Your task to perform on an android device: install app "Indeed Job Search" Image 0: 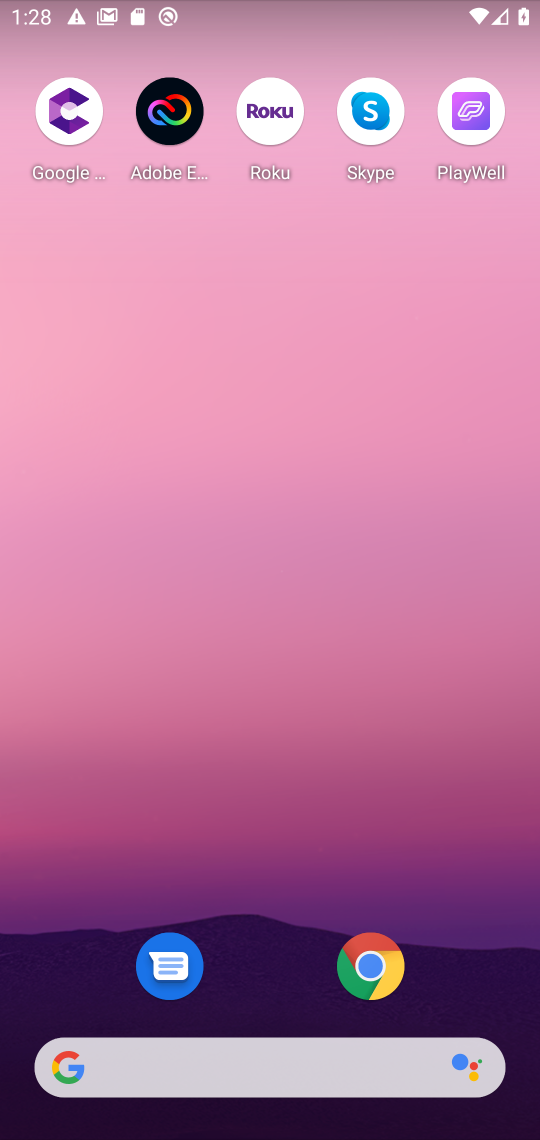
Step 0: drag from (229, 1036) to (216, 82)
Your task to perform on an android device: install app "Indeed Job Search" Image 1: 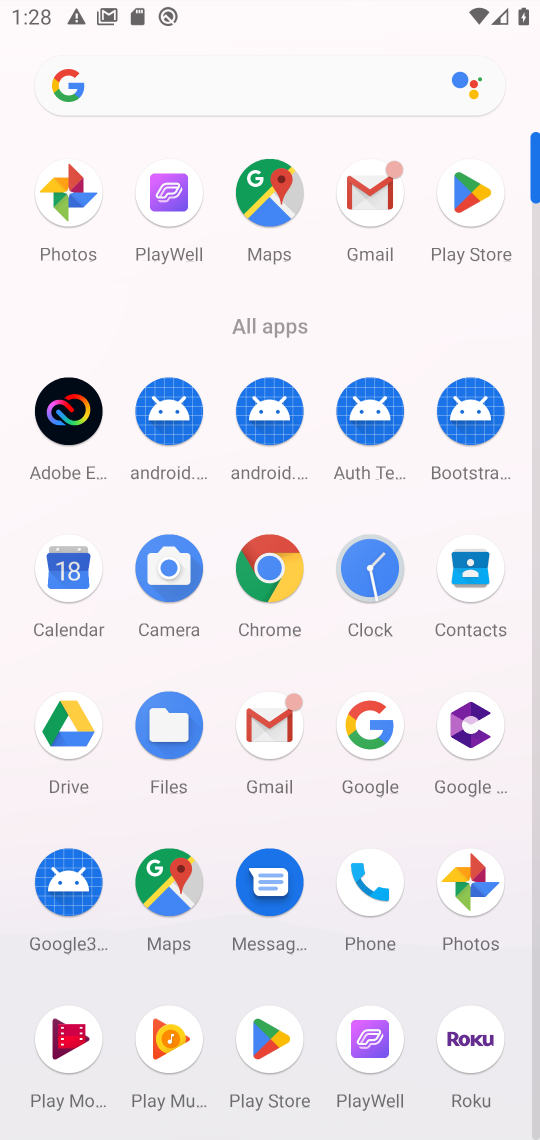
Step 1: click (256, 1055)
Your task to perform on an android device: install app "Indeed Job Search" Image 2: 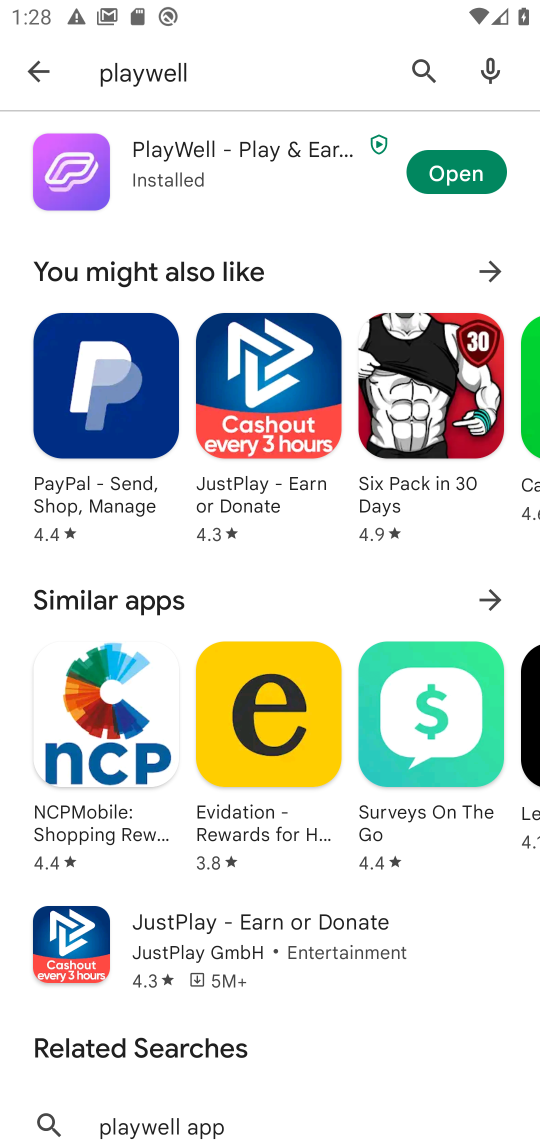
Step 2: click (40, 66)
Your task to perform on an android device: install app "Indeed Job Search" Image 3: 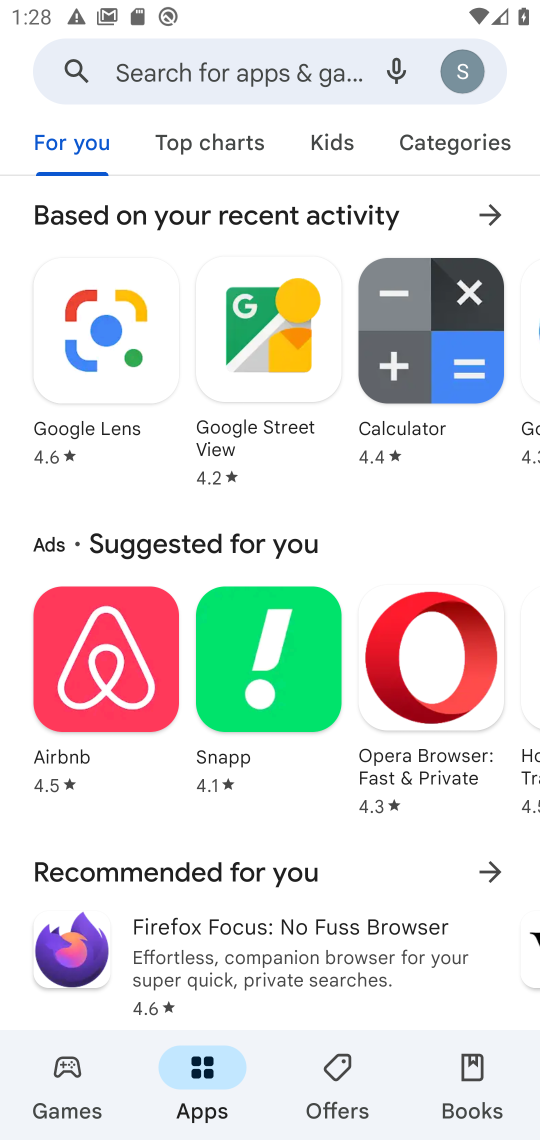
Step 3: click (149, 81)
Your task to perform on an android device: install app "Indeed Job Search" Image 4: 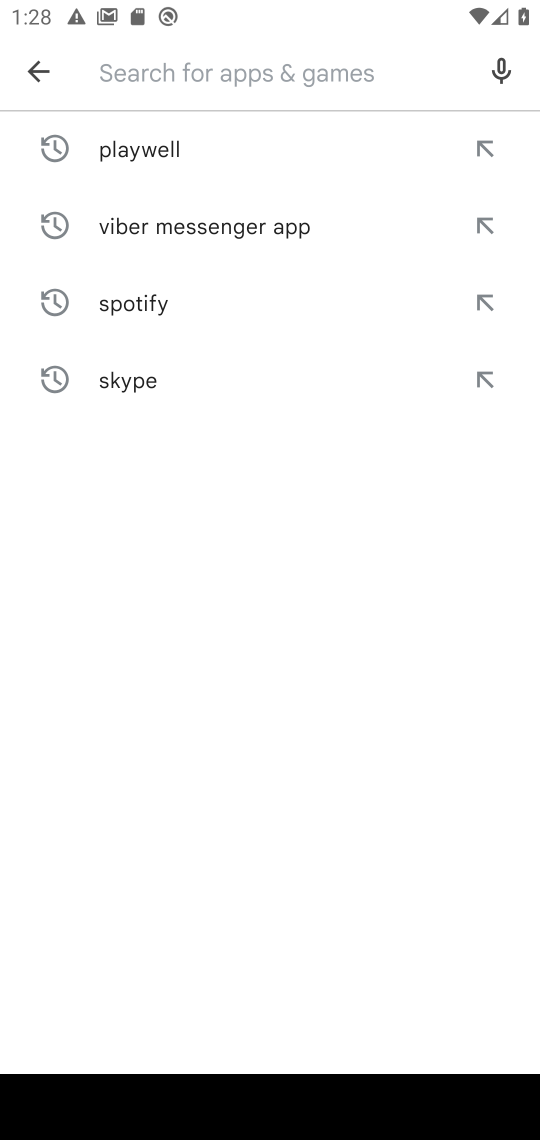
Step 4: type "Indeed Job Search"
Your task to perform on an android device: install app "Indeed Job Search" Image 5: 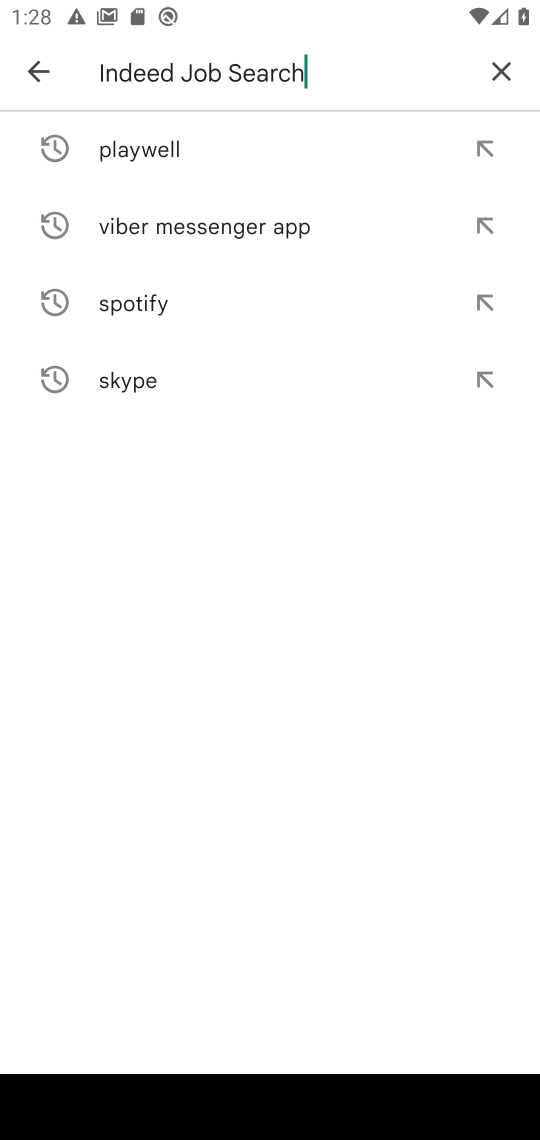
Step 5: type ""
Your task to perform on an android device: install app "Indeed Job Search" Image 6: 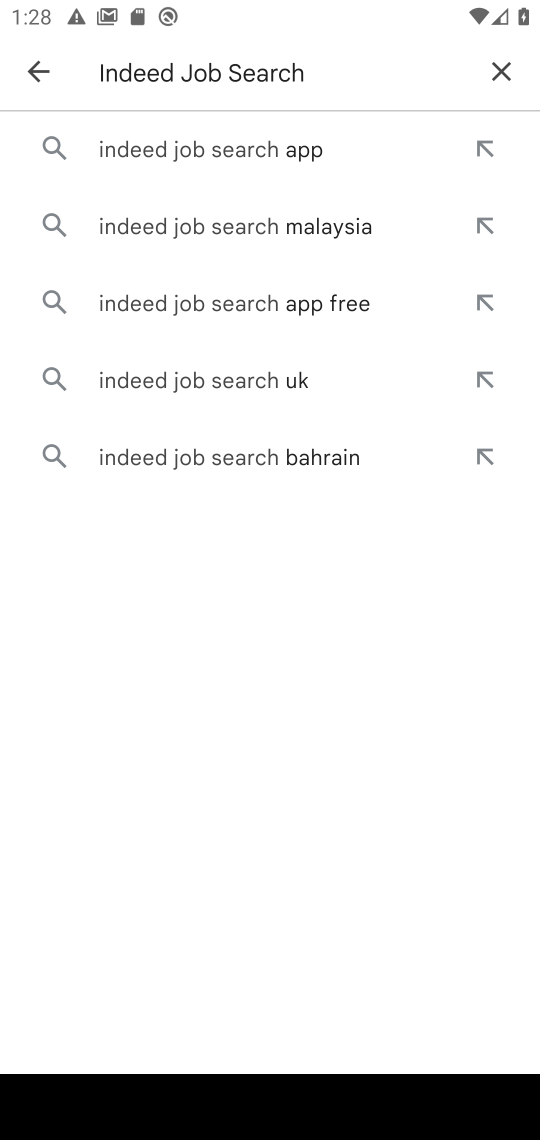
Step 6: click (152, 152)
Your task to perform on an android device: install app "Indeed Job Search" Image 7: 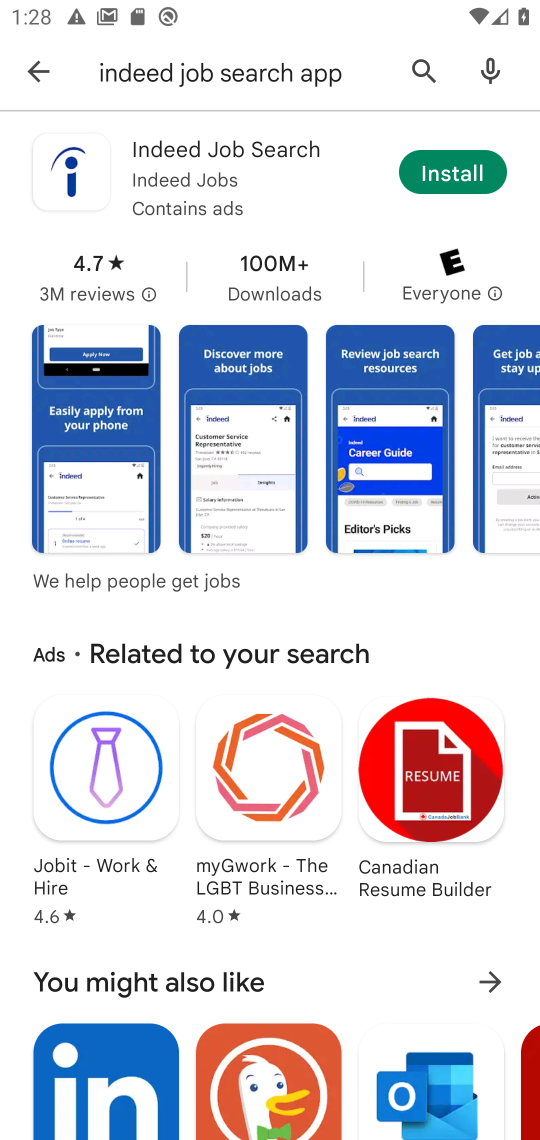
Step 7: click (419, 181)
Your task to perform on an android device: install app "Indeed Job Search" Image 8: 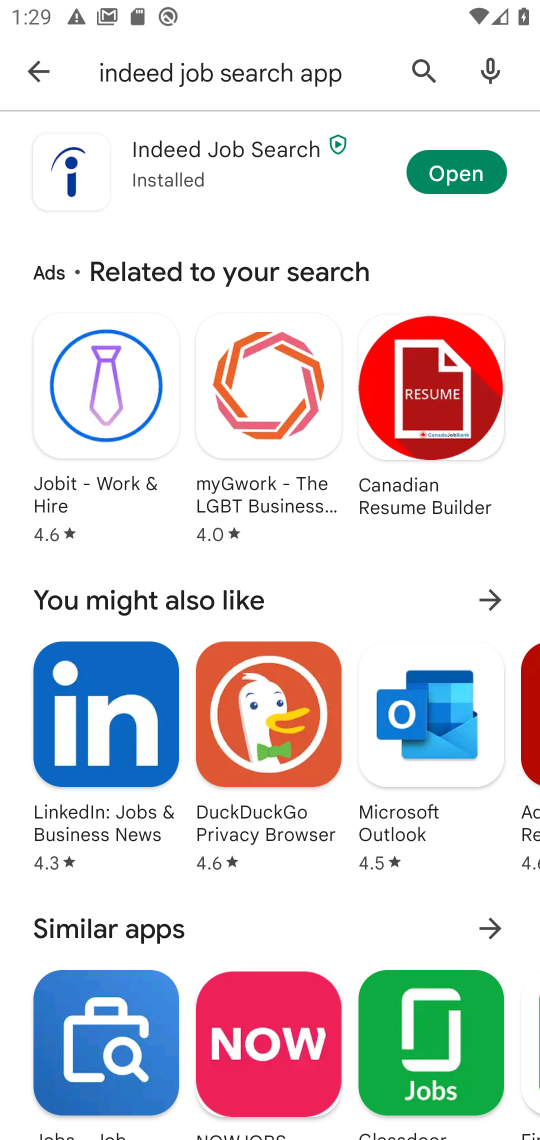
Step 8: click (448, 168)
Your task to perform on an android device: install app "Indeed Job Search" Image 9: 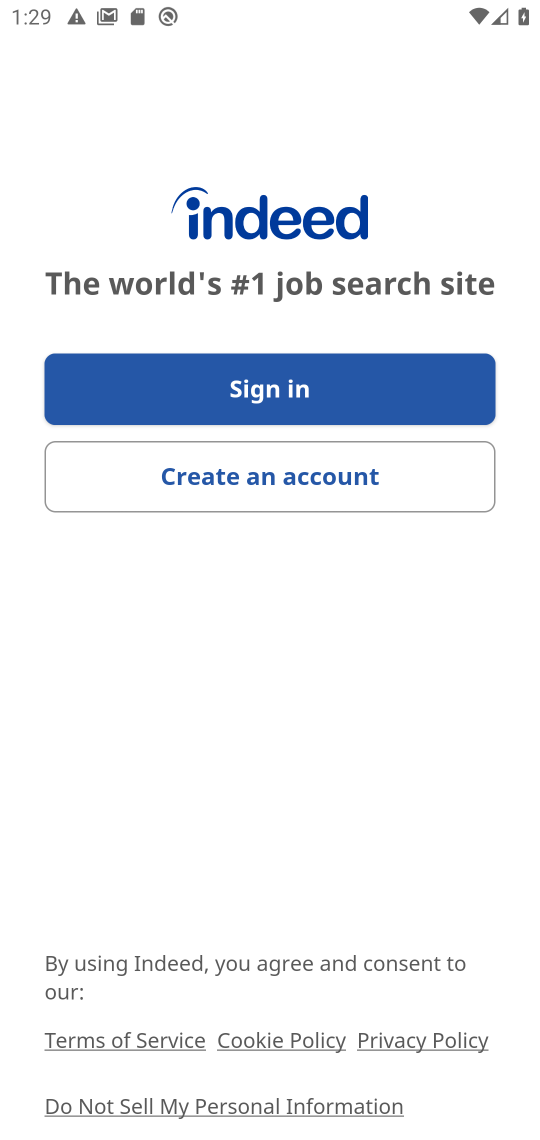
Step 9: task complete